Your task to perform on an android device: Open Yahoo.com Image 0: 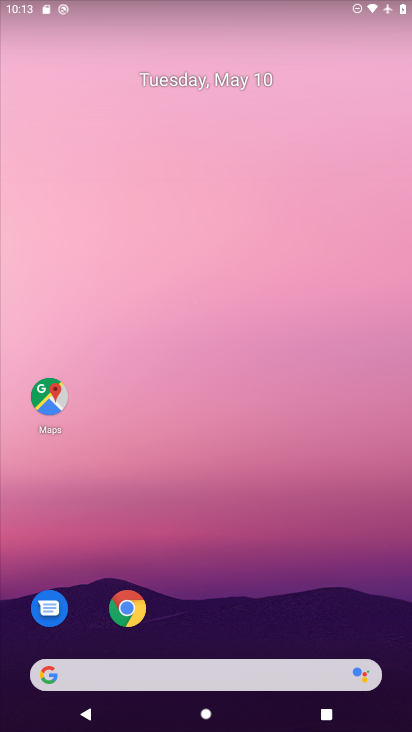
Step 0: drag from (289, 618) to (309, 327)
Your task to perform on an android device: Open Yahoo.com Image 1: 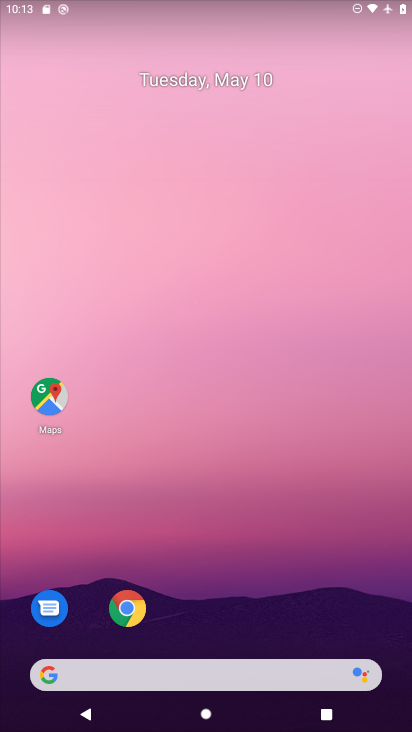
Step 1: drag from (246, 470) to (246, 214)
Your task to perform on an android device: Open Yahoo.com Image 2: 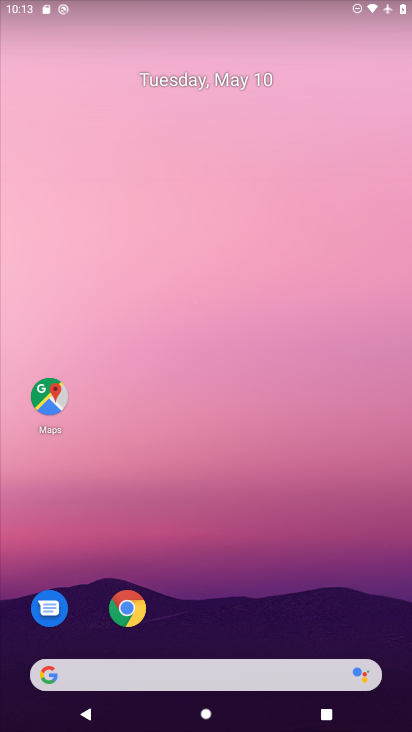
Step 2: drag from (276, 586) to (272, 275)
Your task to perform on an android device: Open Yahoo.com Image 3: 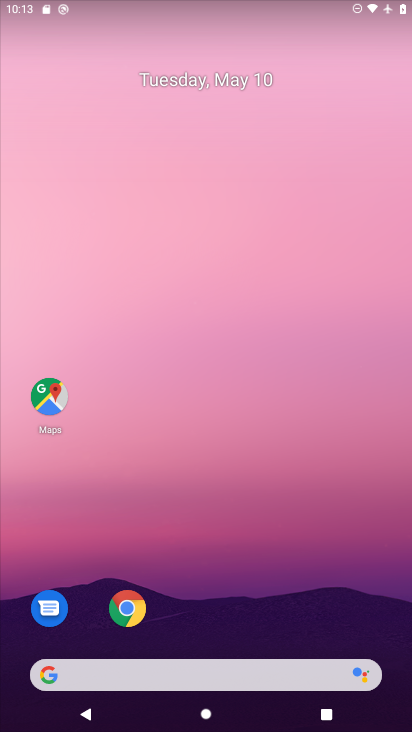
Step 3: click (131, 616)
Your task to perform on an android device: Open Yahoo.com Image 4: 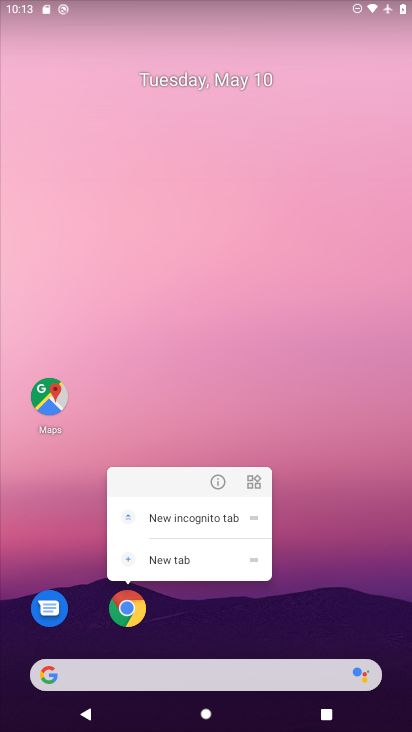
Step 4: click (120, 600)
Your task to perform on an android device: Open Yahoo.com Image 5: 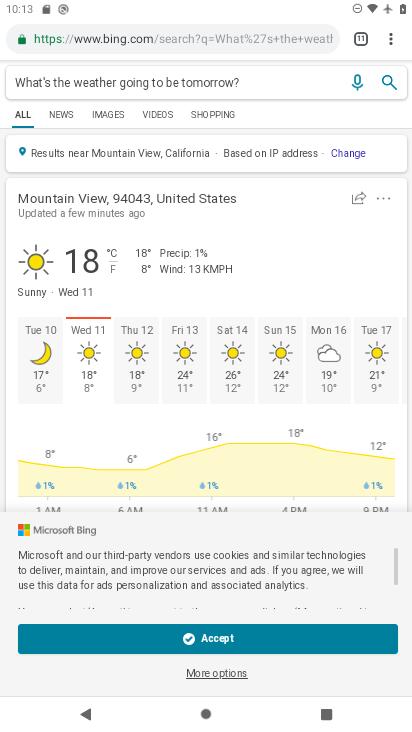
Step 5: click (382, 32)
Your task to perform on an android device: Open Yahoo.com Image 6: 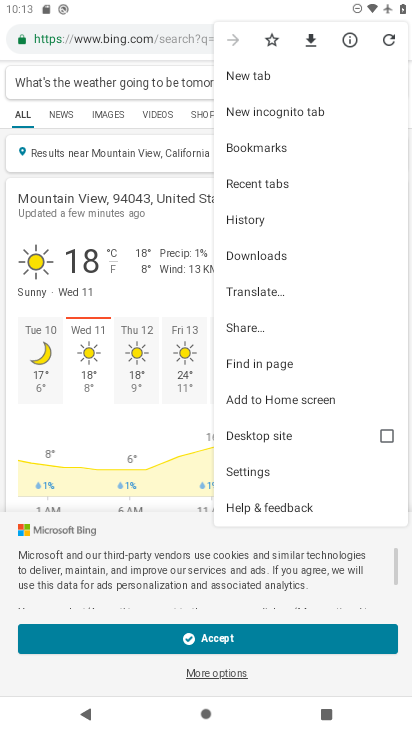
Step 6: click (274, 73)
Your task to perform on an android device: Open Yahoo.com Image 7: 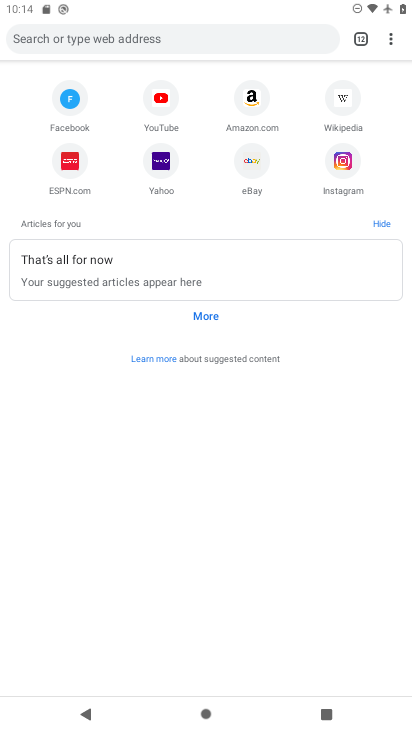
Step 7: click (162, 155)
Your task to perform on an android device: Open Yahoo.com Image 8: 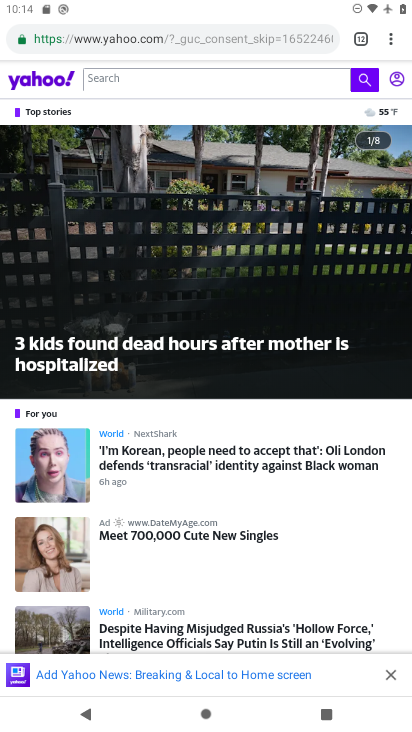
Step 8: task complete